Your task to perform on an android device: allow cookies in the chrome app Image 0: 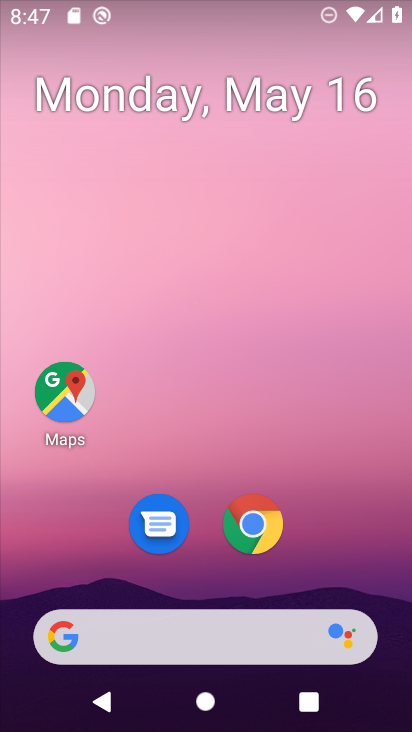
Step 0: click (259, 528)
Your task to perform on an android device: allow cookies in the chrome app Image 1: 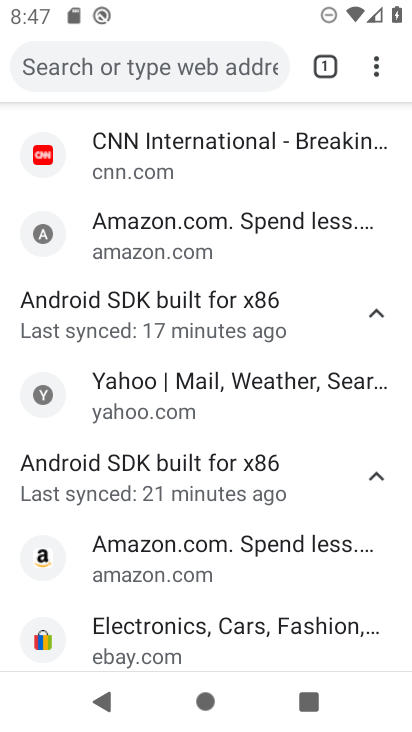
Step 1: click (375, 67)
Your task to perform on an android device: allow cookies in the chrome app Image 2: 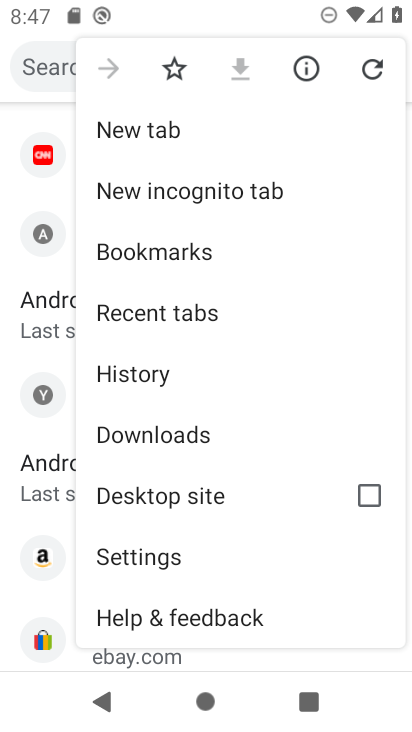
Step 2: click (185, 558)
Your task to perform on an android device: allow cookies in the chrome app Image 3: 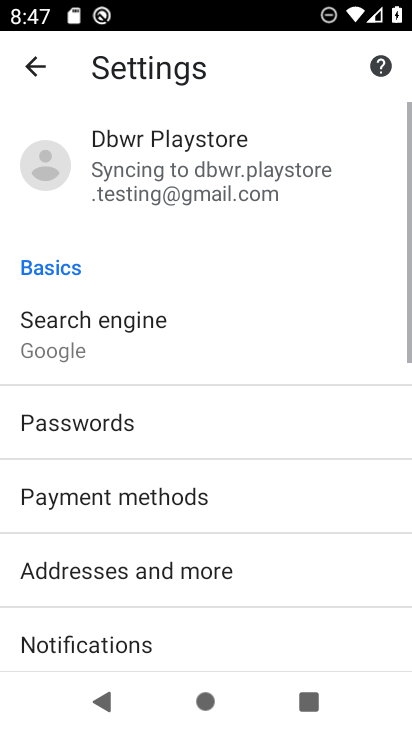
Step 3: drag from (195, 550) to (167, 107)
Your task to perform on an android device: allow cookies in the chrome app Image 4: 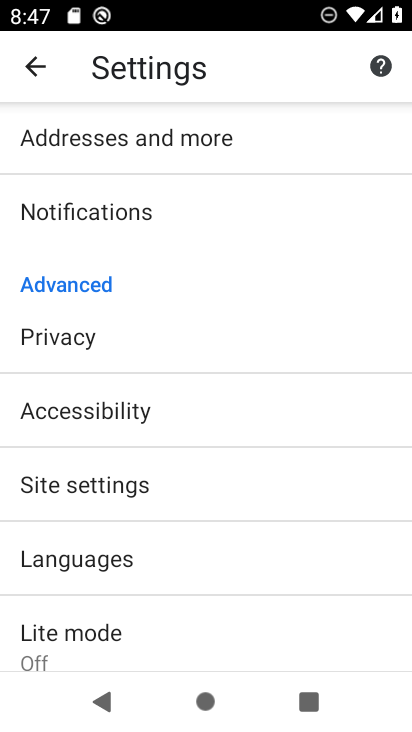
Step 4: click (164, 477)
Your task to perform on an android device: allow cookies in the chrome app Image 5: 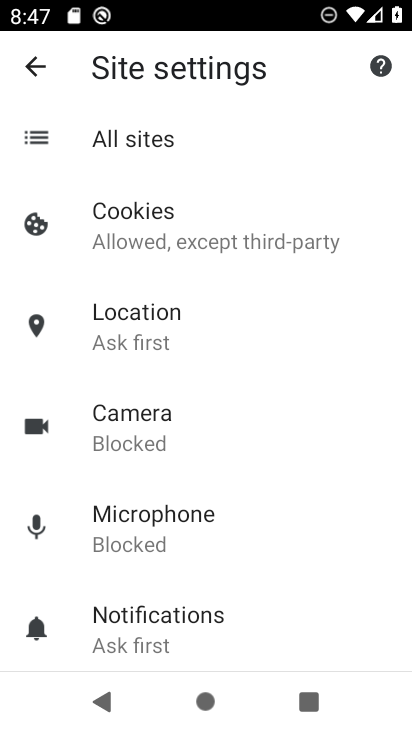
Step 5: click (271, 221)
Your task to perform on an android device: allow cookies in the chrome app Image 6: 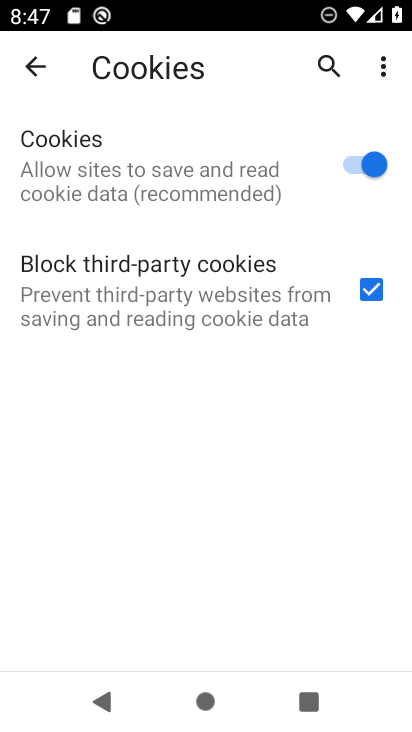
Step 6: task complete